Your task to perform on an android device: Open the calendar app, open the side menu, and click the "Day" option Image 0: 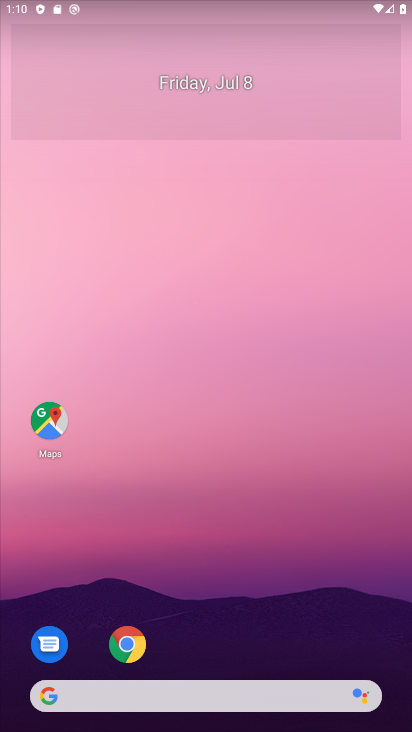
Step 0: press home button
Your task to perform on an android device: Open the calendar app, open the side menu, and click the "Day" option Image 1: 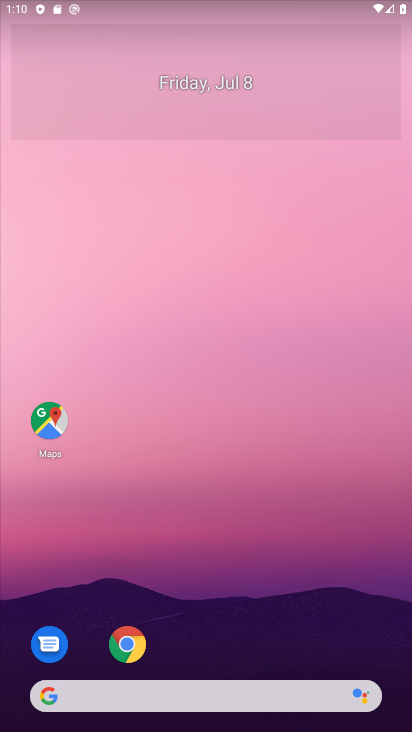
Step 1: drag from (279, 522) to (281, 3)
Your task to perform on an android device: Open the calendar app, open the side menu, and click the "Day" option Image 2: 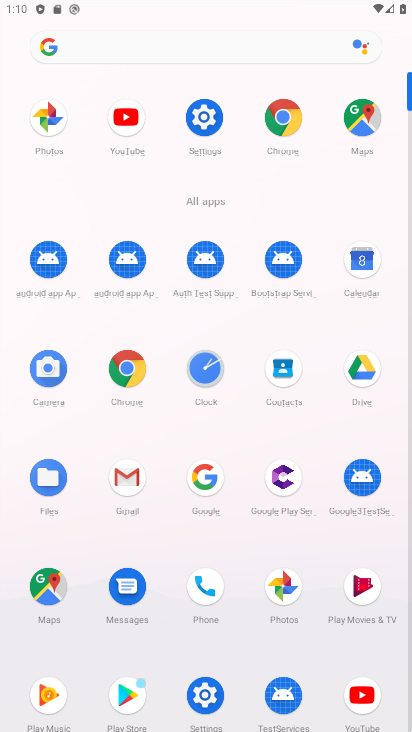
Step 2: click (373, 277)
Your task to perform on an android device: Open the calendar app, open the side menu, and click the "Day" option Image 3: 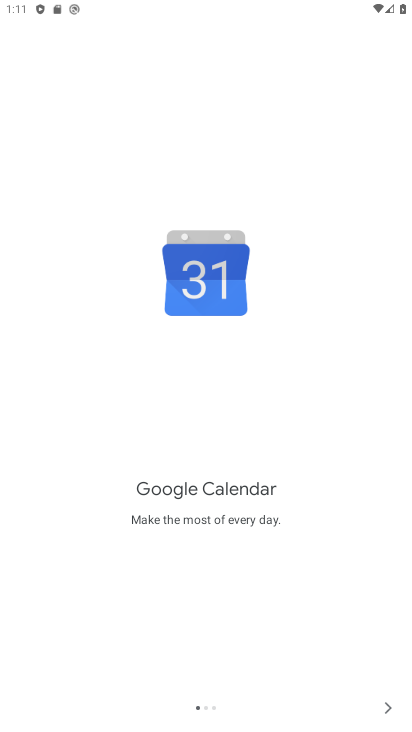
Step 3: click (383, 704)
Your task to perform on an android device: Open the calendar app, open the side menu, and click the "Day" option Image 4: 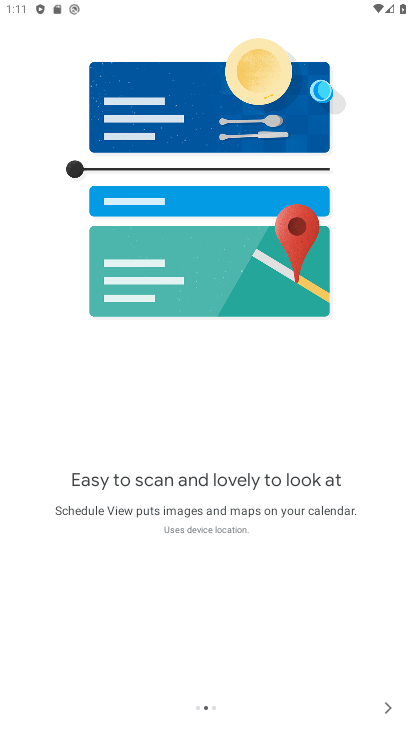
Step 4: click (383, 704)
Your task to perform on an android device: Open the calendar app, open the side menu, and click the "Day" option Image 5: 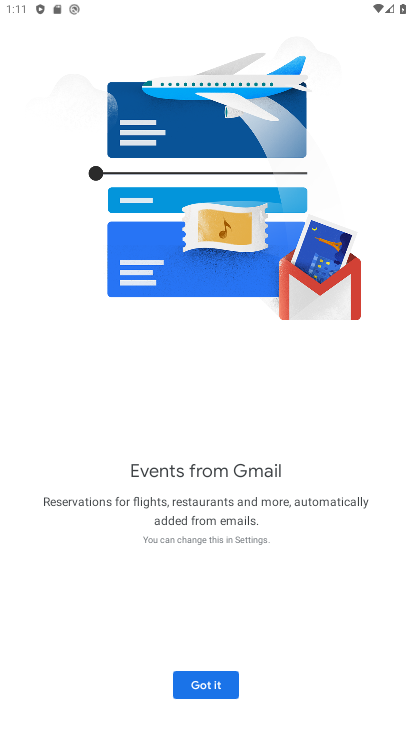
Step 5: click (208, 677)
Your task to perform on an android device: Open the calendar app, open the side menu, and click the "Day" option Image 6: 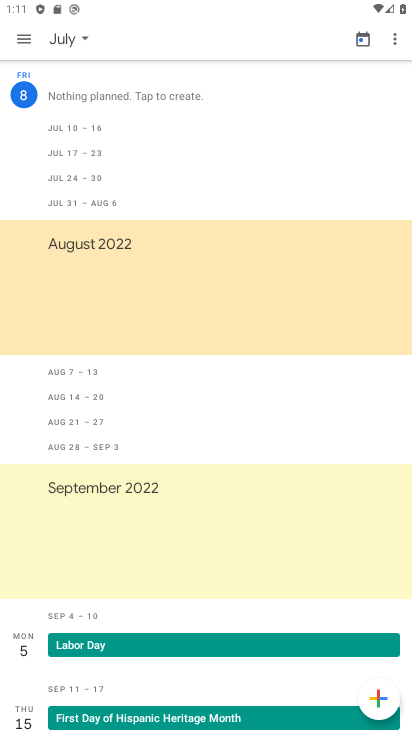
Step 6: click (19, 38)
Your task to perform on an android device: Open the calendar app, open the side menu, and click the "Day" option Image 7: 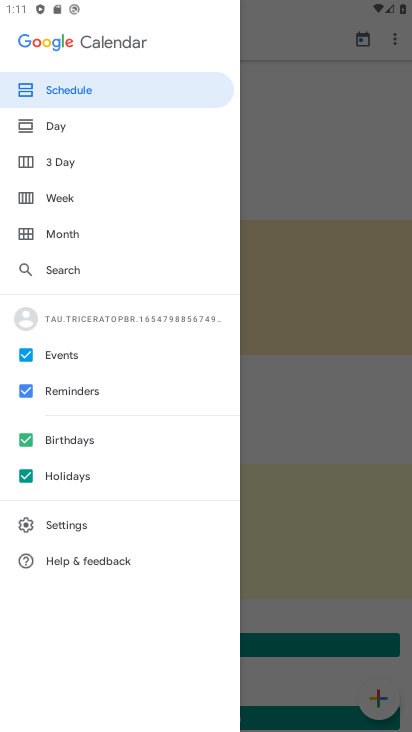
Step 7: click (71, 130)
Your task to perform on an android device: Open the calendar app, open the side menu, and click the "Day" option Image 8: 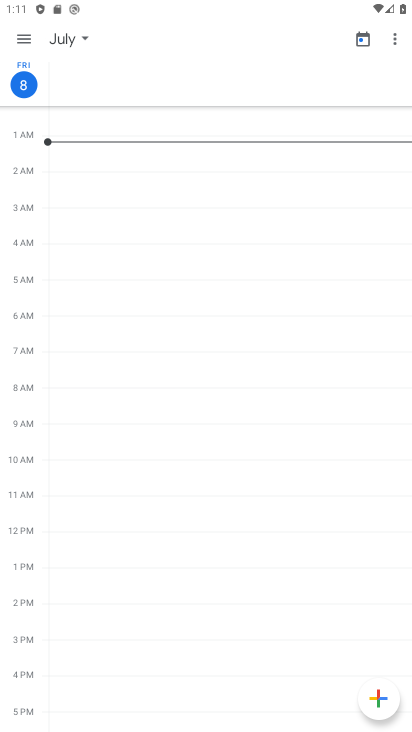
Step 8: task complete